Your task to perform on an android device: Show the shopping cart on newegg. Add macbook pro to the cart on newegg Image 0: 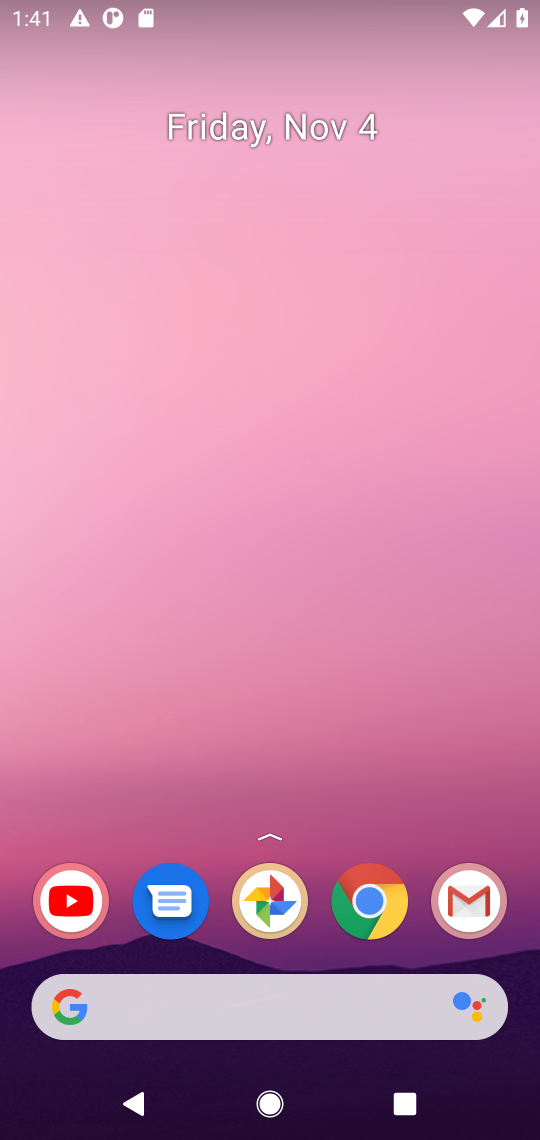
Step 0: click (369, 900)
Your task to perform on an android device: Show the shopping cart on newegg. Add macbook pro to the cart on newegg Image 1: 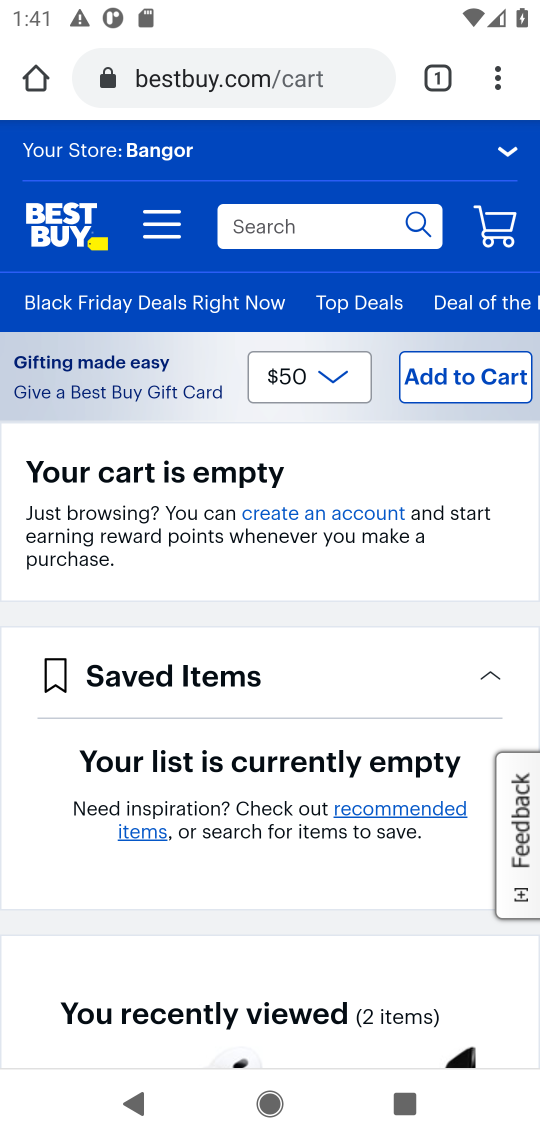
Step 1: click (161, 63)
Your task to perform on an android device: Show the shopping cart on newegg. Add macbook pro to the cart on newegg Image 2: 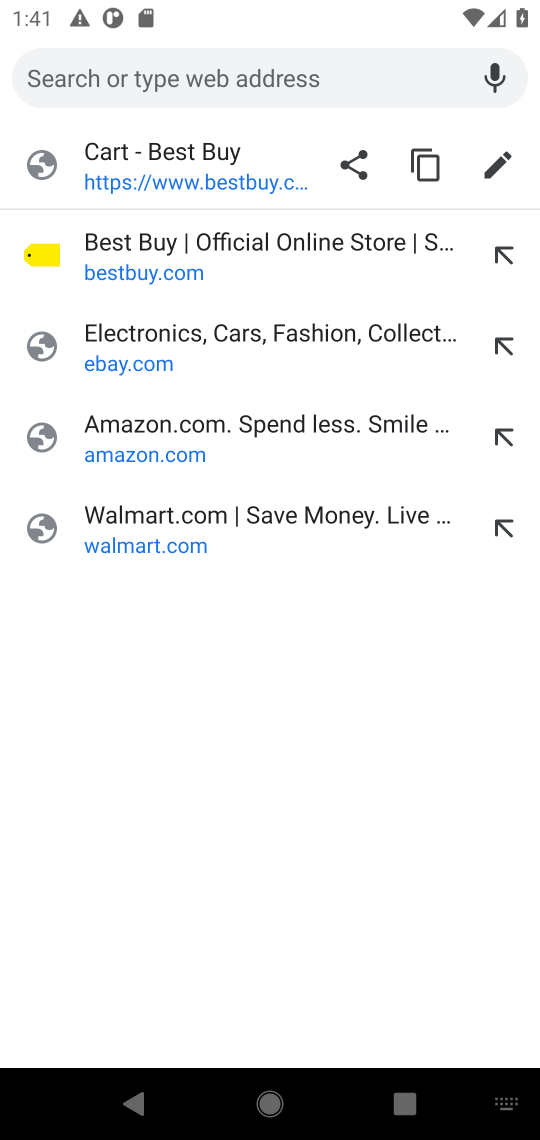
Step 2: type "newegg"
Your task to perform on an android device: Show the shopping cart on newegg. Add macbook pro to the cart on newegg Image 3: 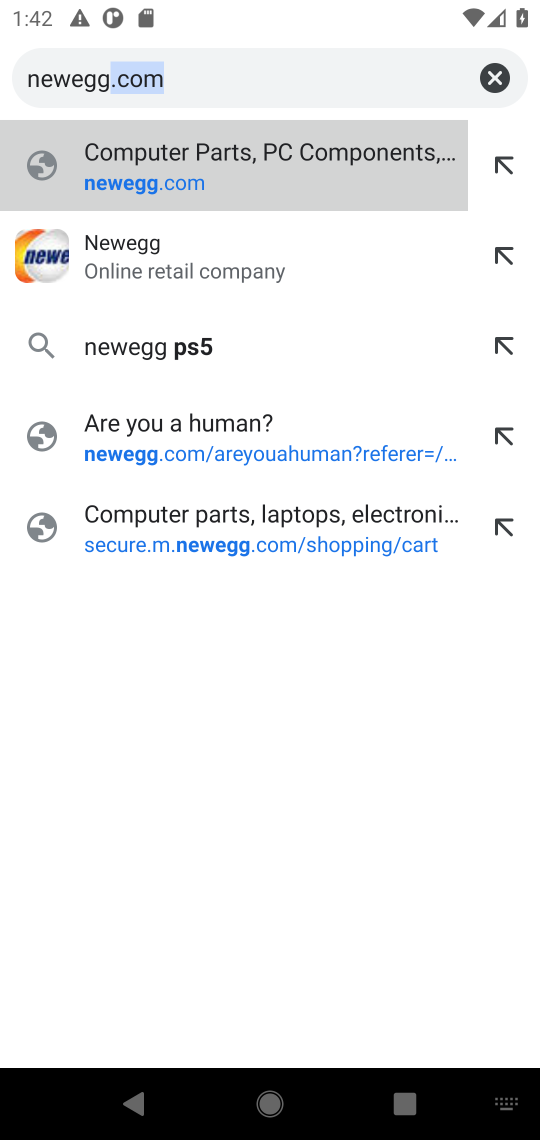
Step 3: press enter
Your task to perform on an android device: Show the shopping cart on newegg. Add macbook pro to the cart on newegg Image 4: 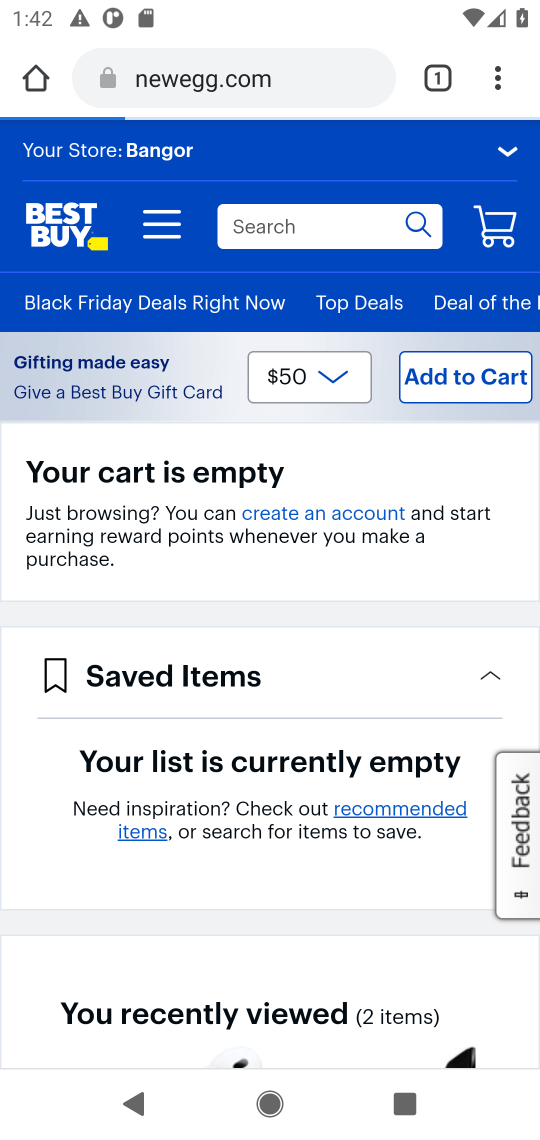
Step 4: click (287, 80)
Your task to perform on an android device: Show the shopping cart on newegg. Add macbook pro to the cart on newegg Image 5: 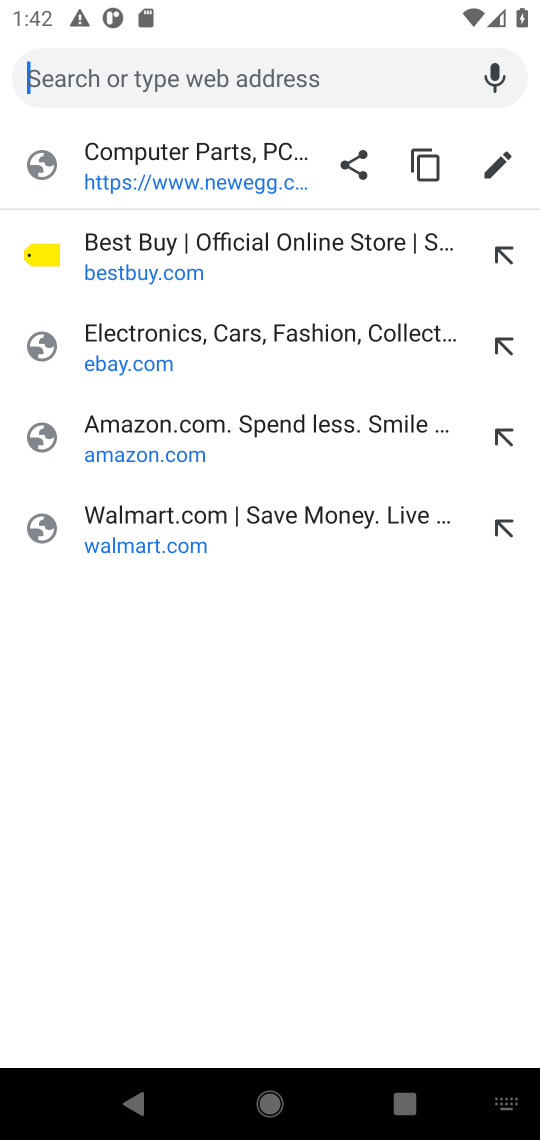
Step 5: type "newegg"
Your task to perform on an android device: Show the shopping cart on newegg. Add macbook pro to the cart on newegg Image 6: 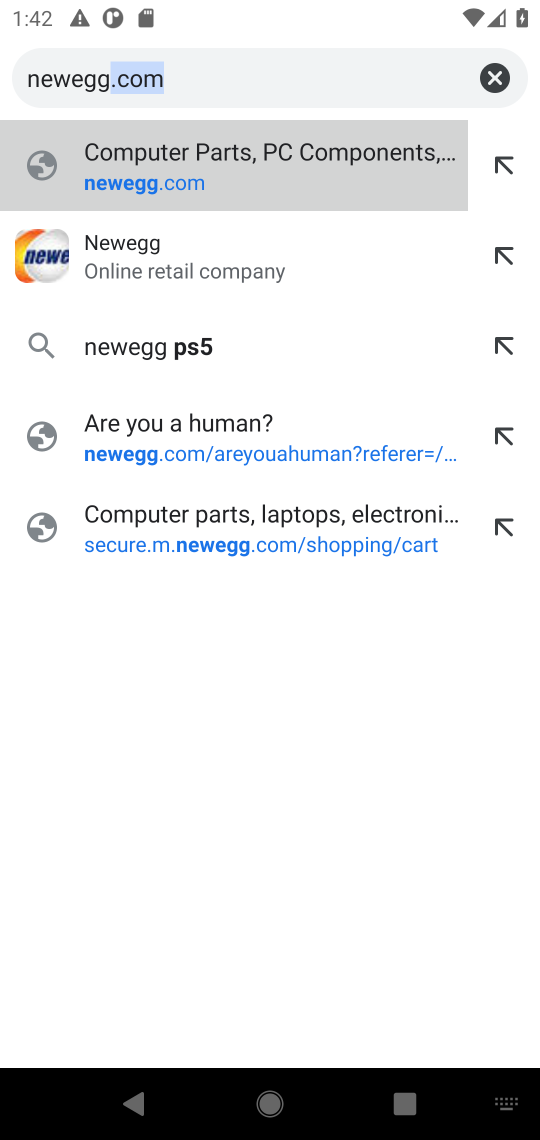
Step 6: press enter
Your task to perform on an android device: Show the shopping cart on newegg. Add macbook pro to the cart on newegg Image 7: 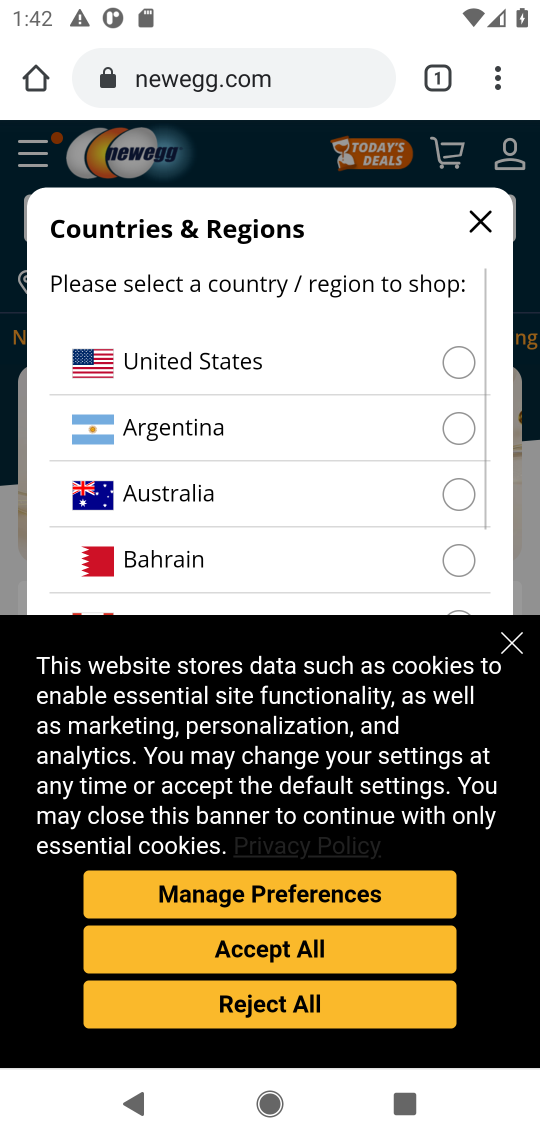
Step 7: click (467, 364)
Your task to perform on an android device: Show the shopping cart on newegg. Add macbook pro to the cart on newegg Image 8: 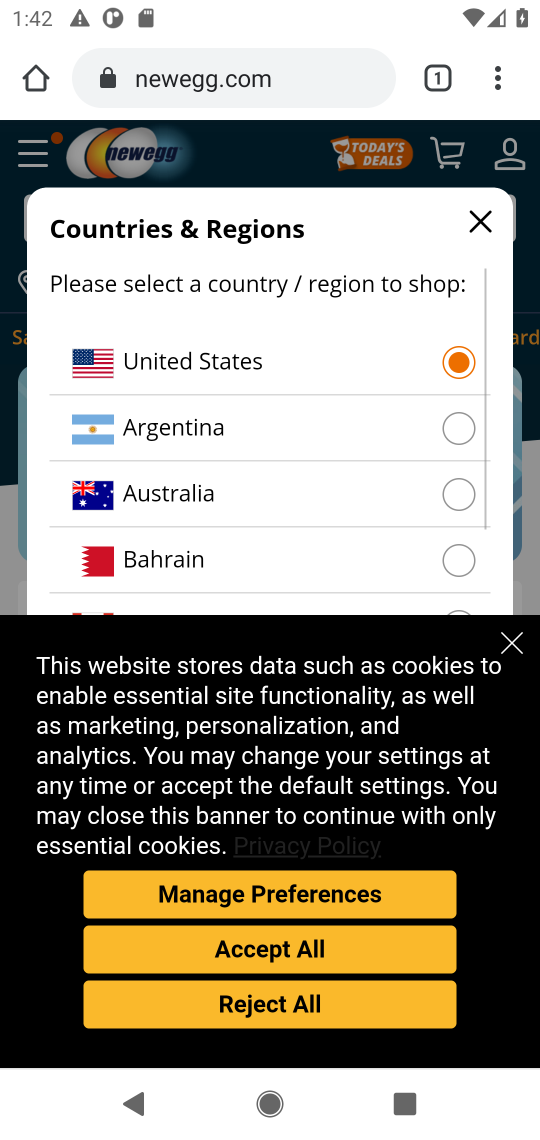
Step 8: click (269, 953)
Your task to perform on an android device: Show the shopping cart on newegg. Add macbook pro to the cart on newegg Image 9: 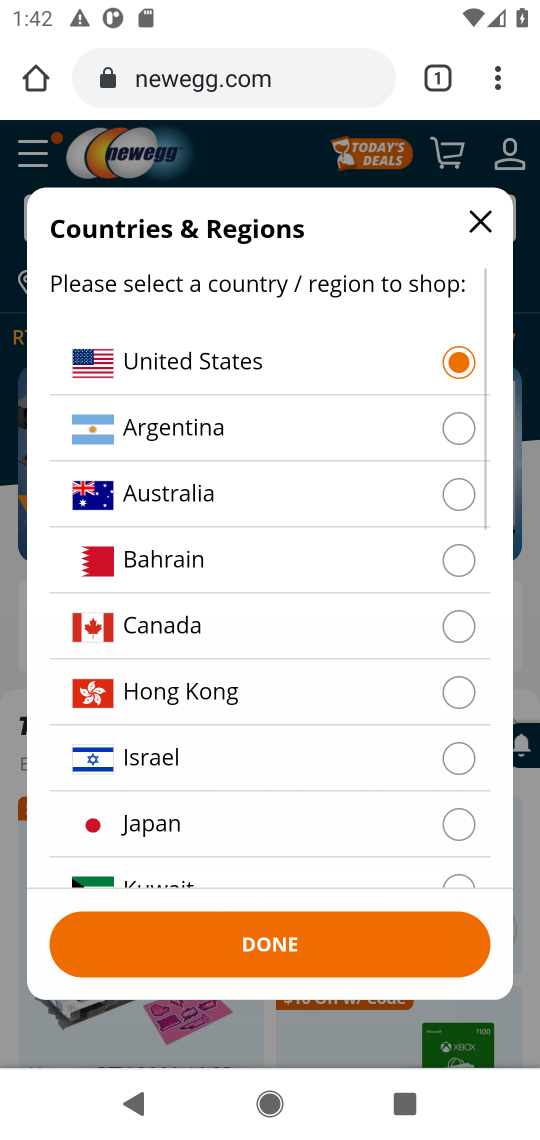
Step 9: click (509, 646)
Your task to perform on an android device: Show the shopping cart on newegg. Add macbook pro to the cart on newegg Image 10: 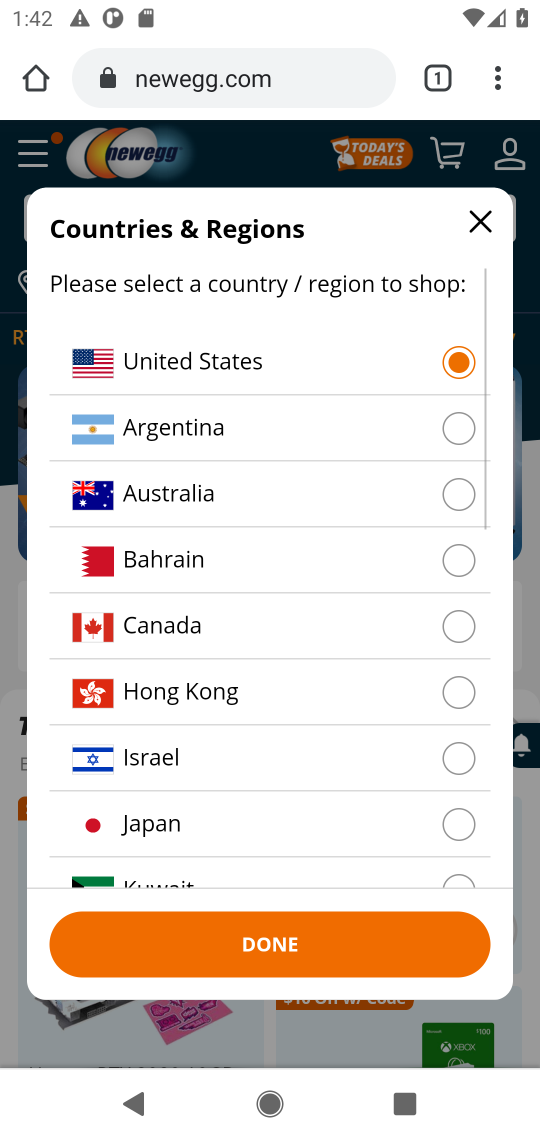
Step 10: click (332, 949)
Your task to perform on an android device: Show the shopping cart on newegg. Add macbook pro to the cart on newegg Image 11: 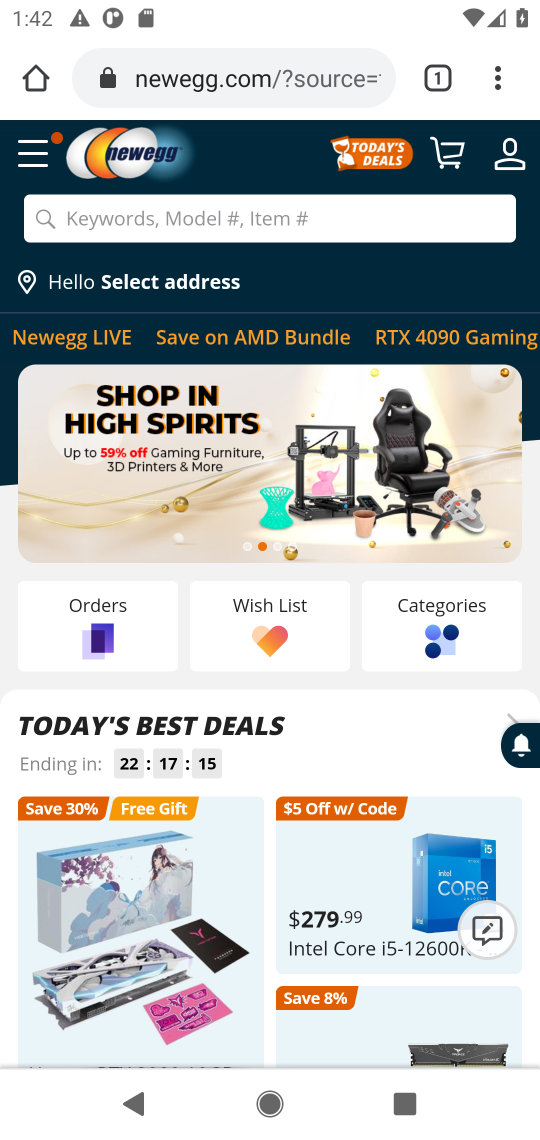
Step 11: click (247, 219)
Your task to perform on an android device: Show the shopping cart on newegg. Add macbook pro to the cart on newegg Image 12: 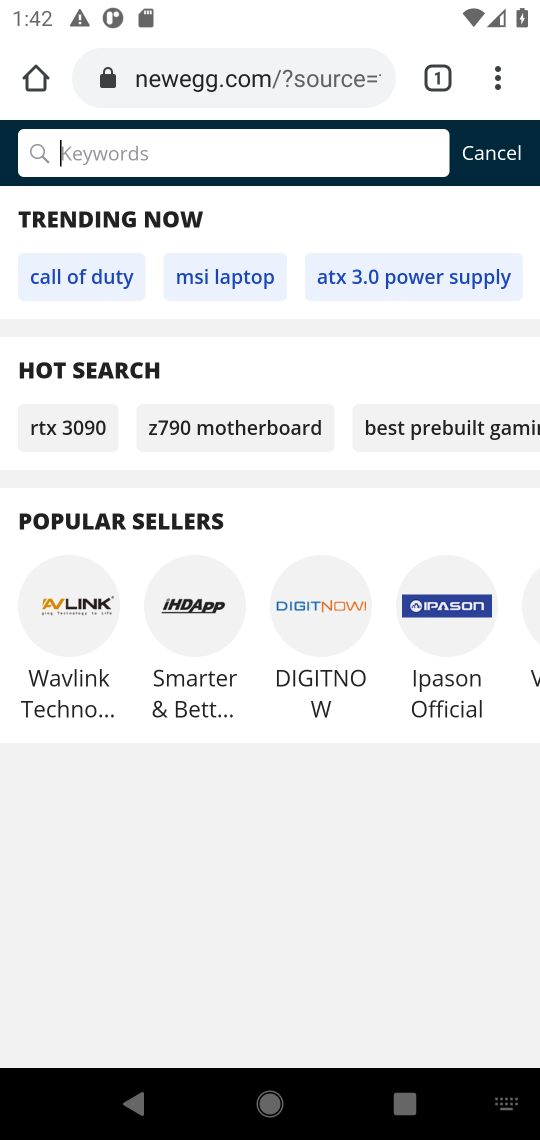
Step 12: press enter
Your task to perform on an android device: Show the shopping cart on newegg. Add macbook pro to the cart on newegg Image 13: 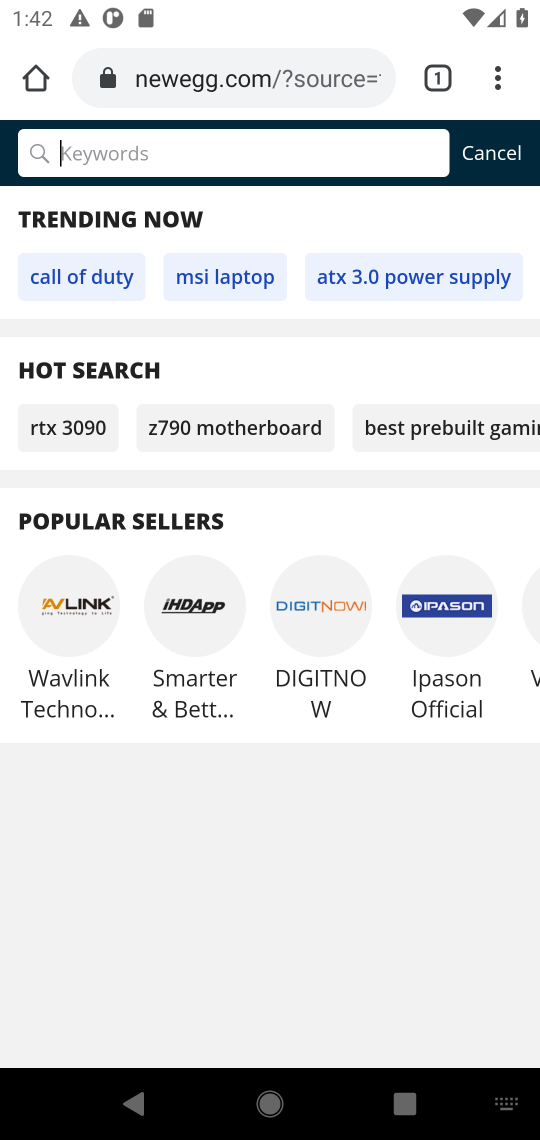
Step 13: type "macbook pro"
Your task to perform on an android device: Show the shopping cart on newegg. Add macbook pro to the cart on newegg Image 14: 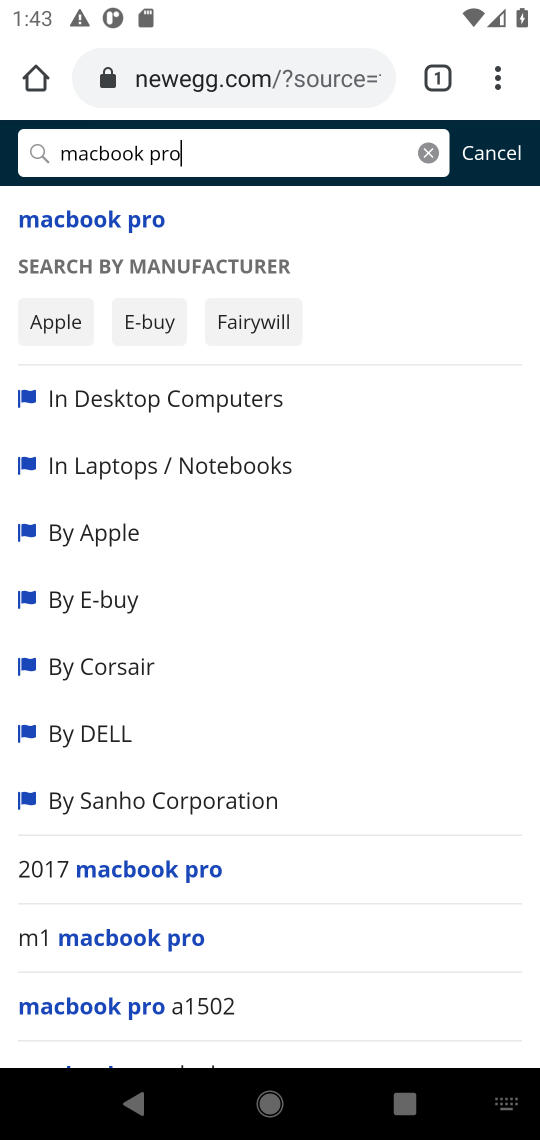
Step 14: click (159, 214)
Your task to perform on an android device: Show the shopping cart on newegg. Add macbook pro to the cart on newegg Image 15: 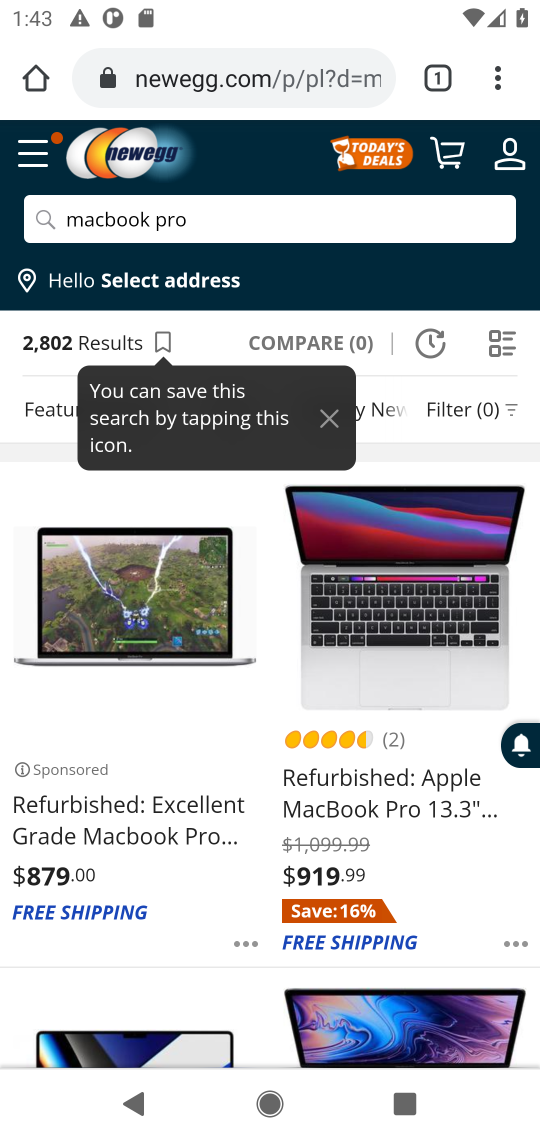
Step 15: click (112, 623)
Your task to perform on an android device: Show the shopping cart on newegg. Add macbook pro to the cart on newegg Image 16: 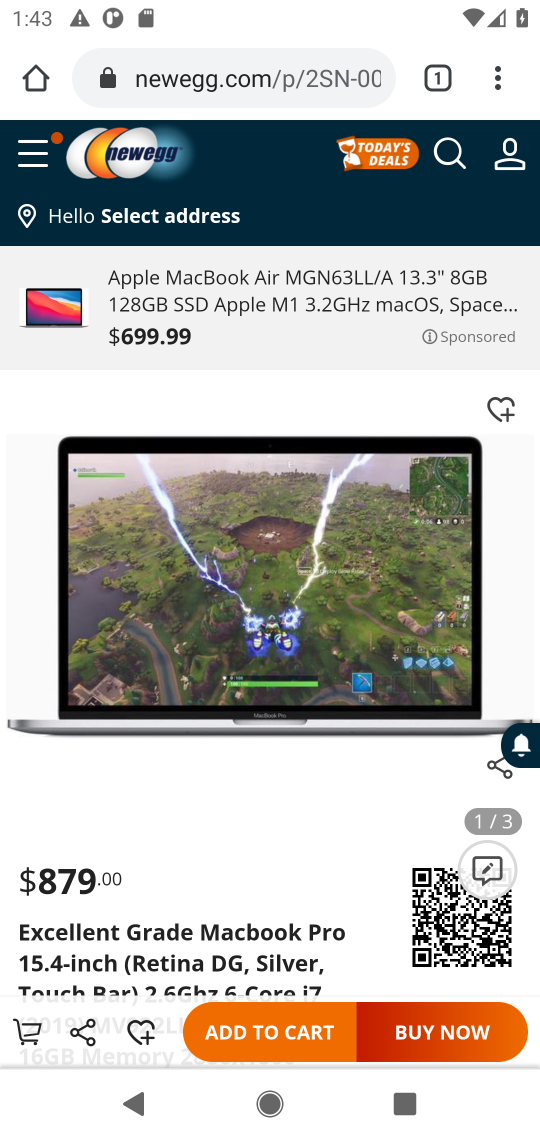
Step 16: click (252, 1031)
Your task to perform on an android device: Show the shopping cart on newegg. Add macbook pro to the cart on newegg Image 17: 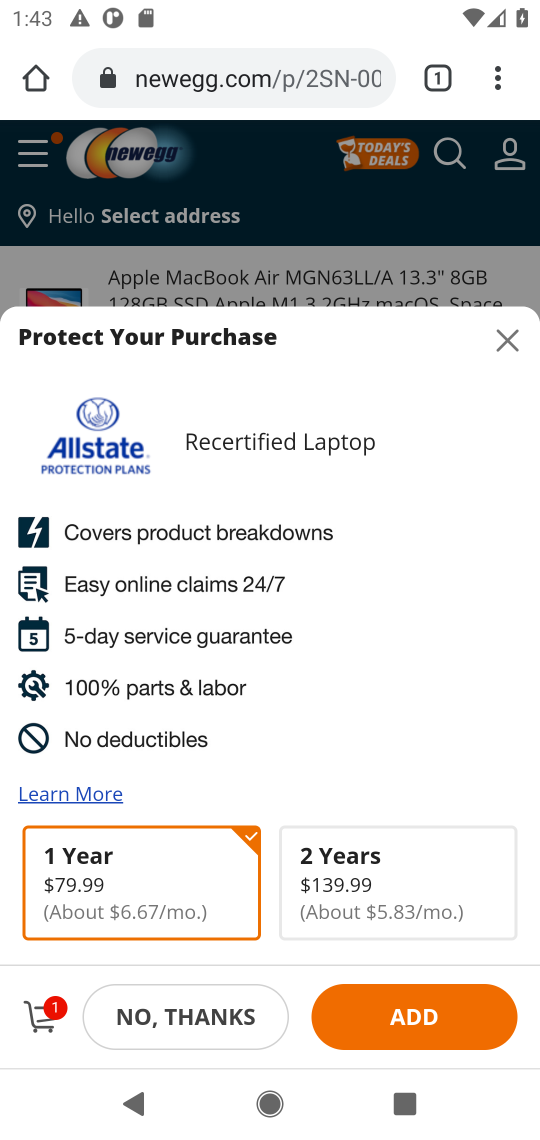
Step 17: task complete